Your task to perform on an android device: Open sound settings Image 0: 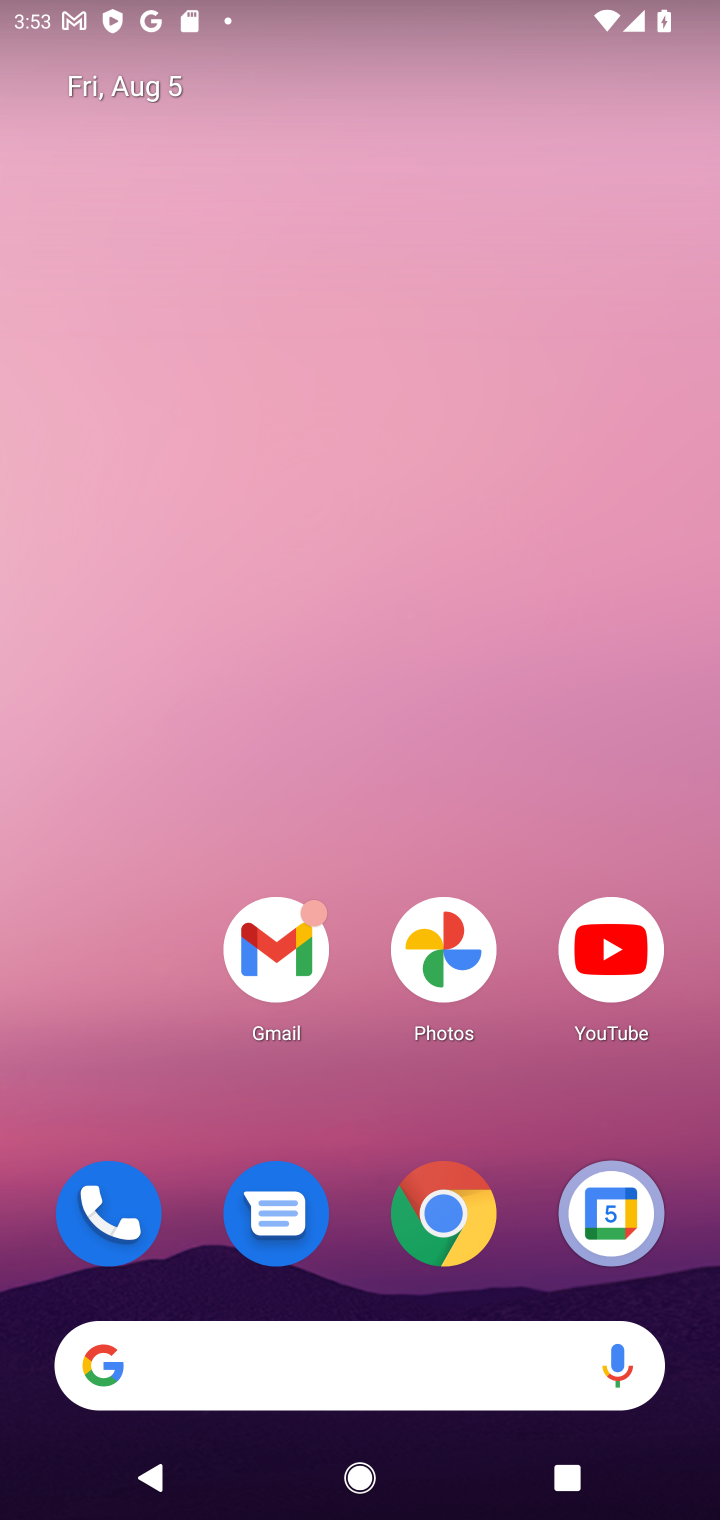
Step 0: click (412, 1281)
Your task to perform on an android device: Open sound settings Image 1: 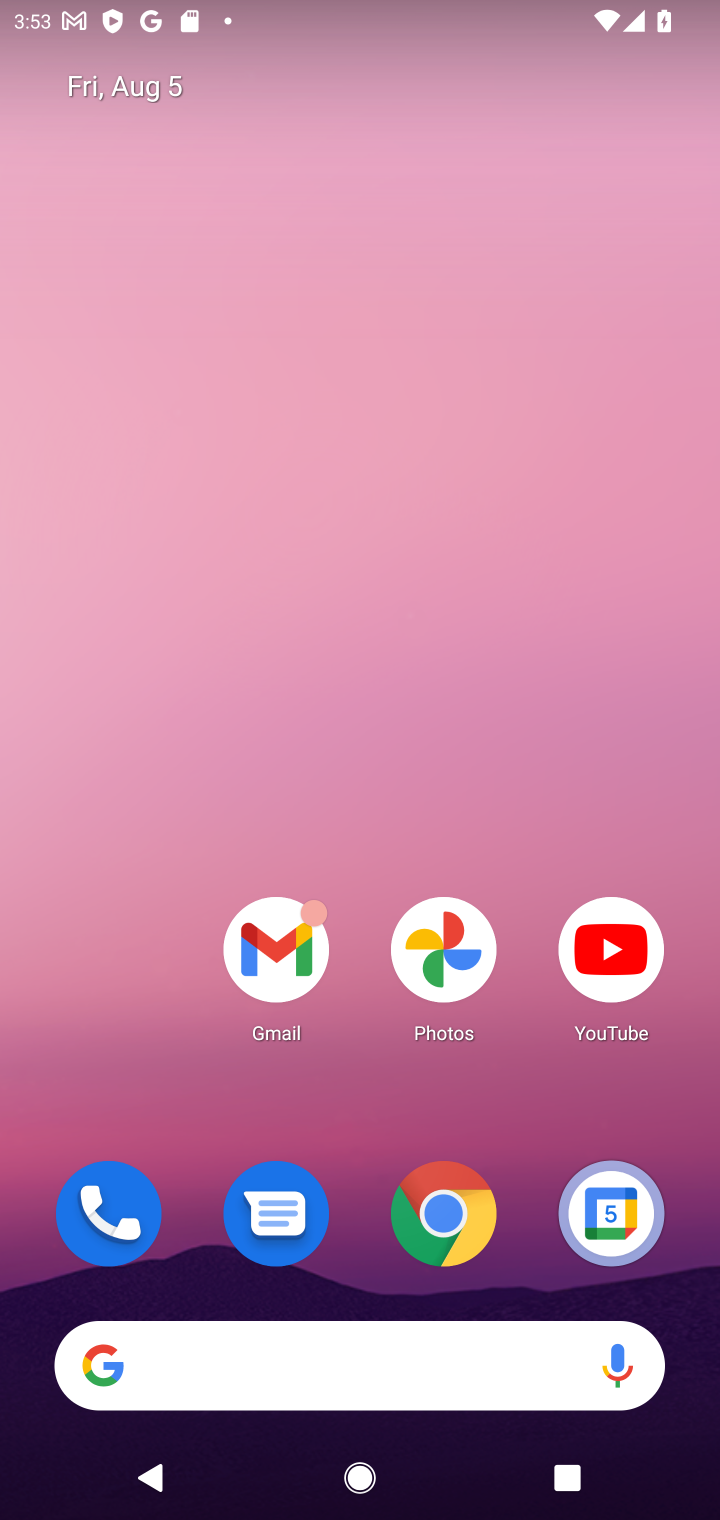
Step 1: drag from (370, 1281) to (454, 115)
Your task to perform on an android device: Open sound settings Image 2: 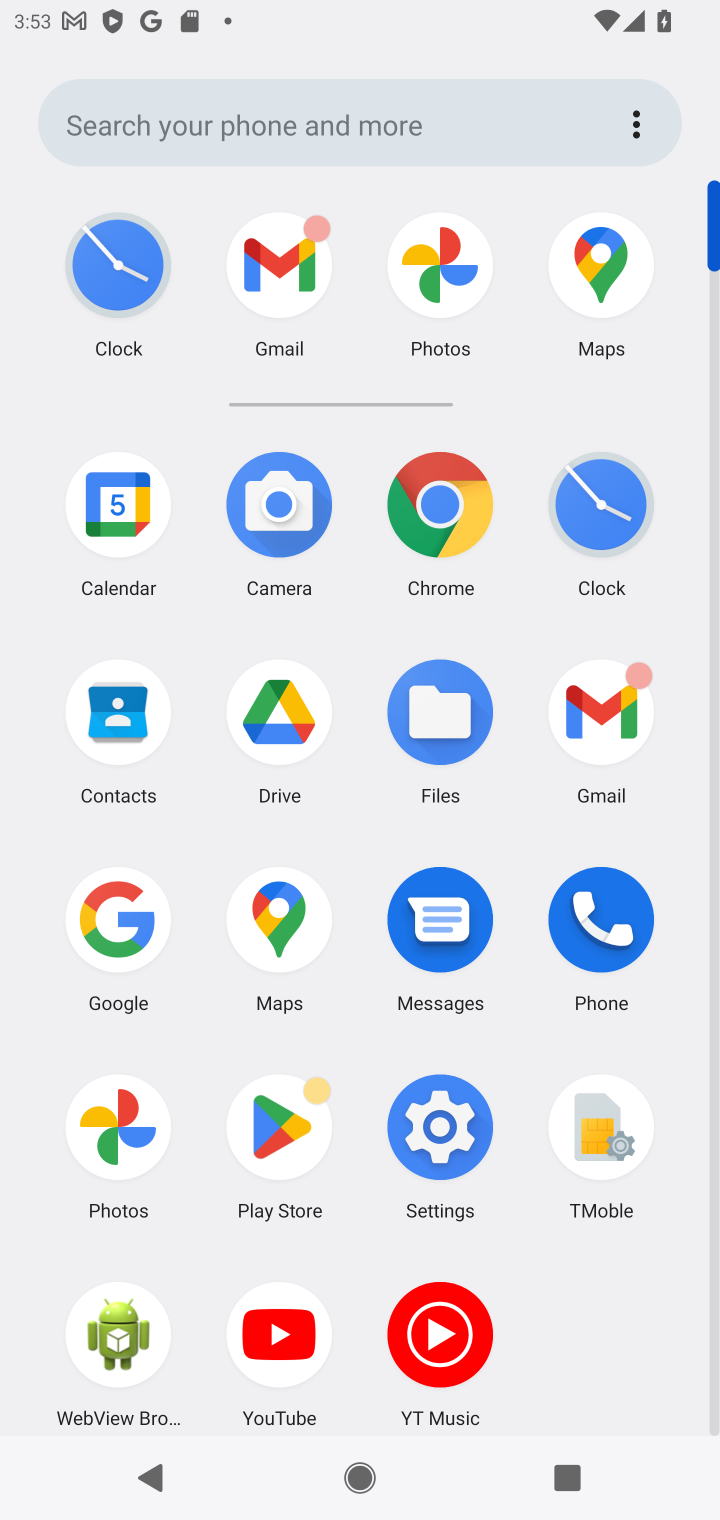
Step 2: click (483, 1114)
Your task to perform on an android device: Open sound settings Image 3: 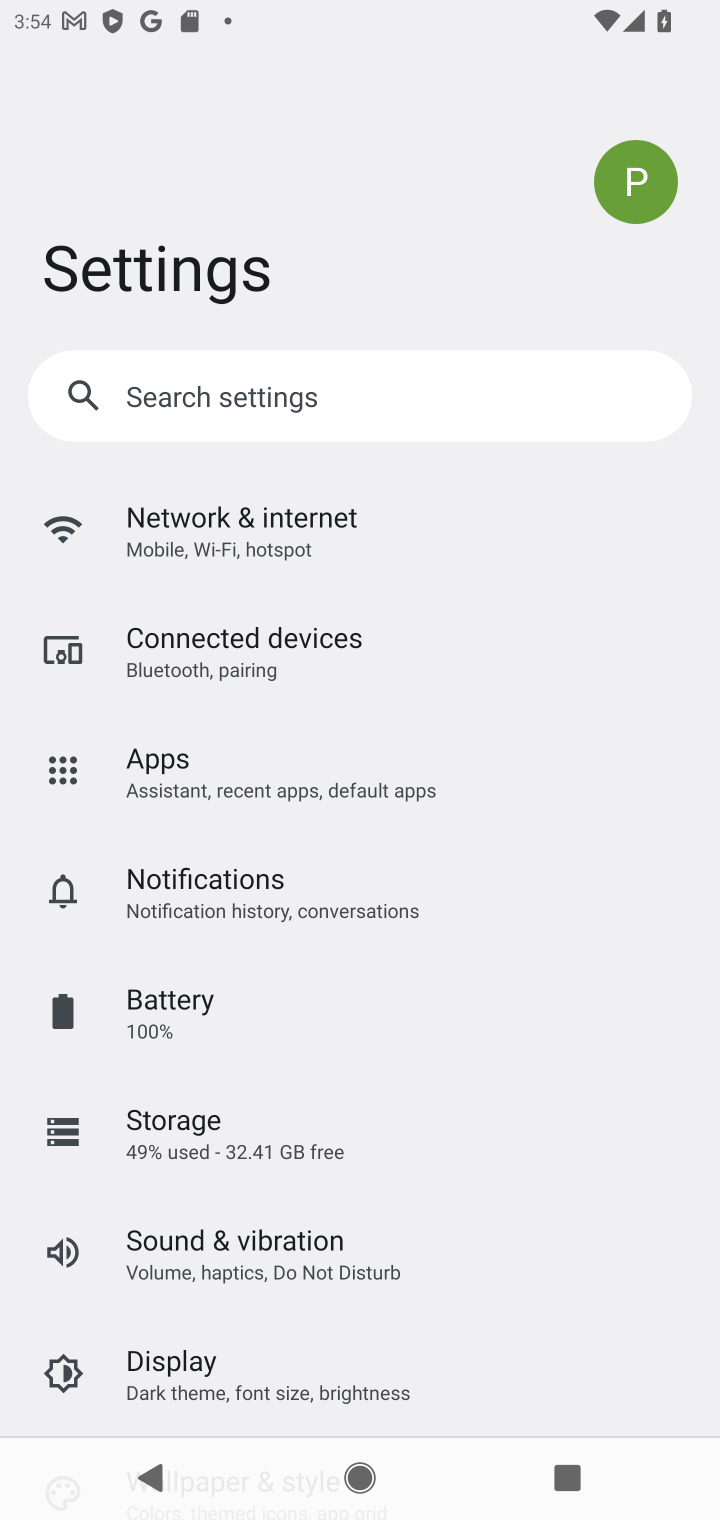
Step 3: click (239, 1298)
Your task to perform on an android device: Open sound settings Image 4: 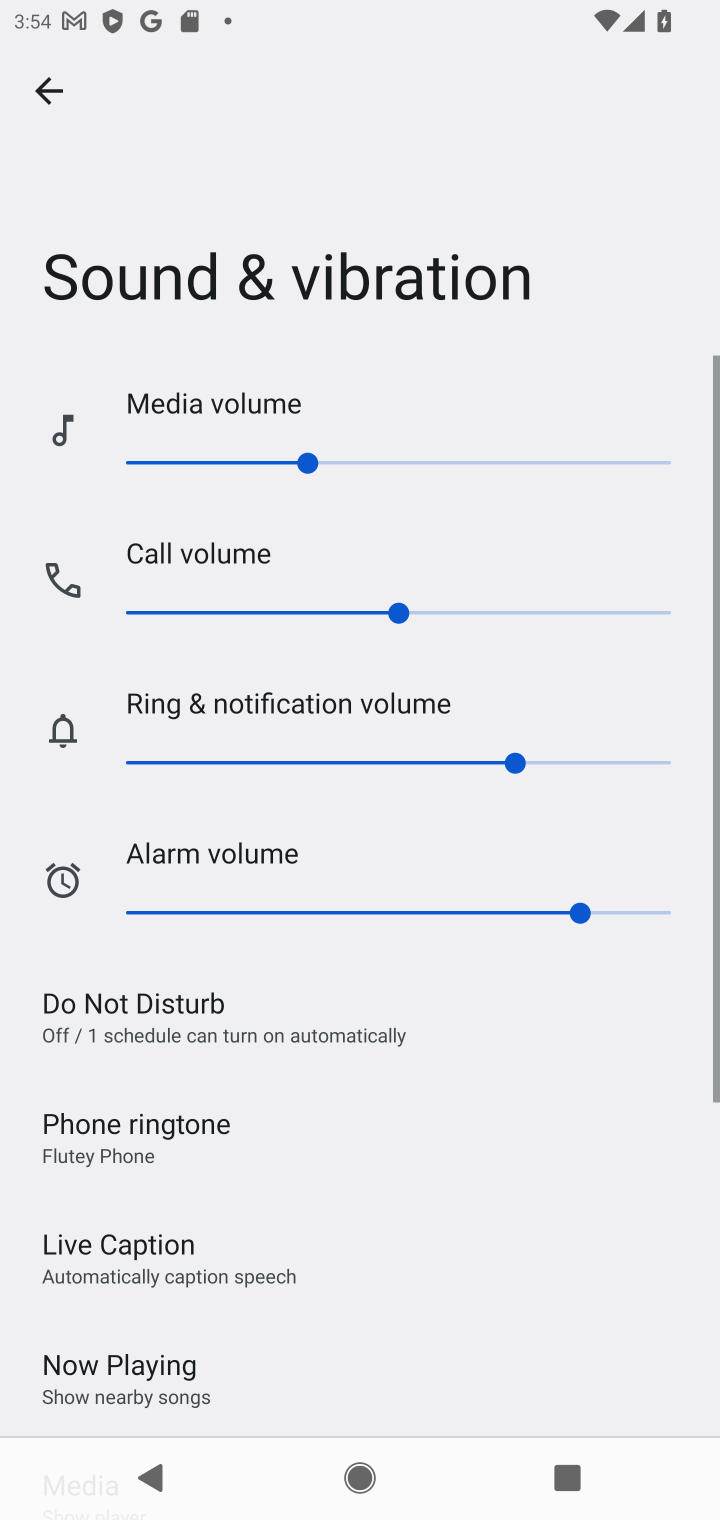
Step 4: task complete